Your task to perform on an android device: Go to CNN.com Image 0: 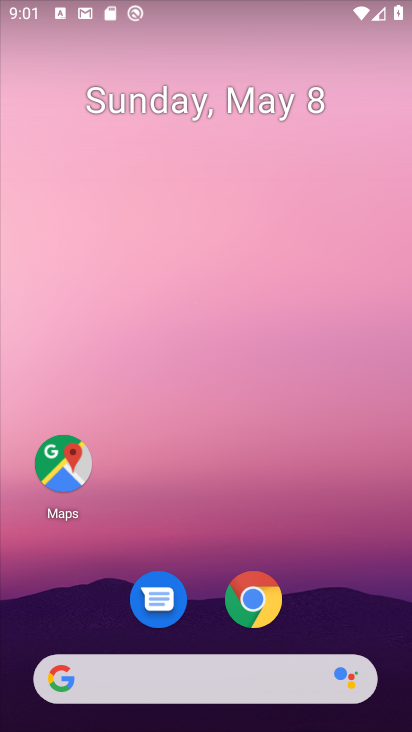
Step 0: click (262, 596)
Your task to perform on an android device: Go to CNN.com Image 1: 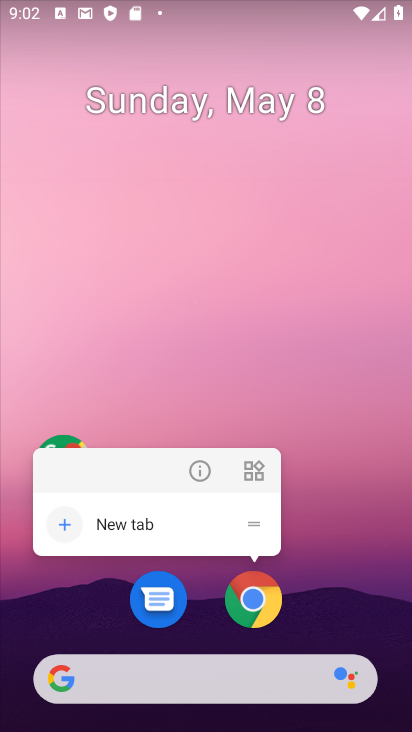
Step 1: click (286, 605)
Your task to perform on an android device: Go to CNN.com Image 2: 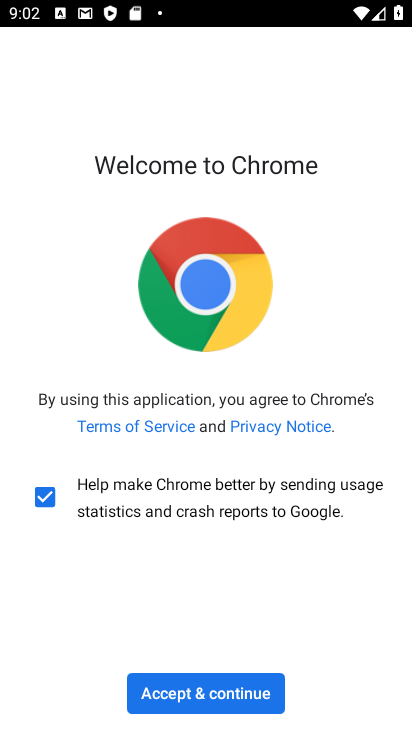
Step 2: click (204, 682)
Your task to perform on an android device: Go to CNN.com Image 3: 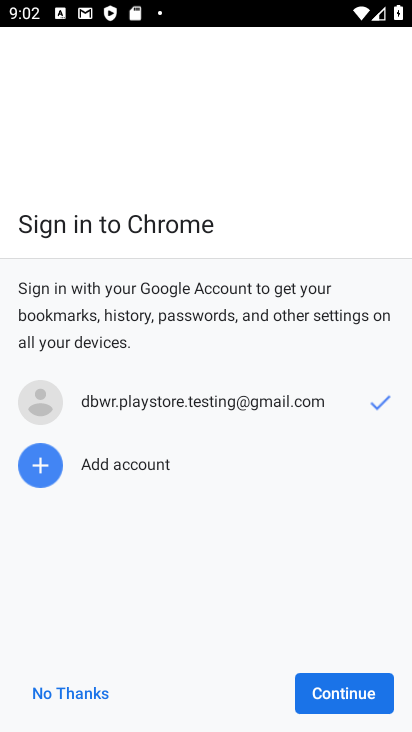
Step 3: click (347, 709)
Your task to perform on an android device: Go to CNN.com Image 4: 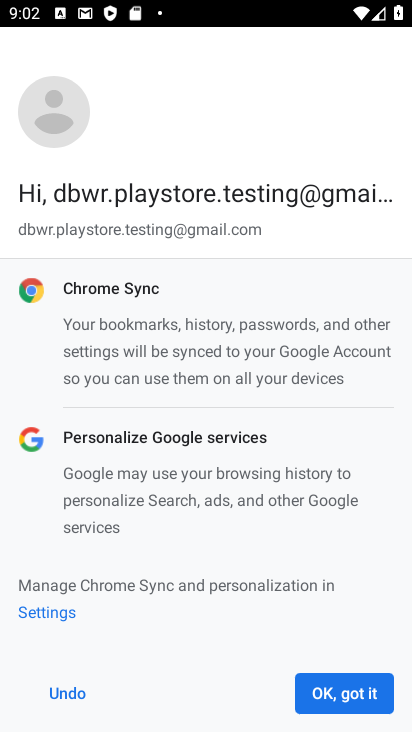
Step 4: click (321, 694)
Your task to perform on an android device: Go to CNN.com Image 5: 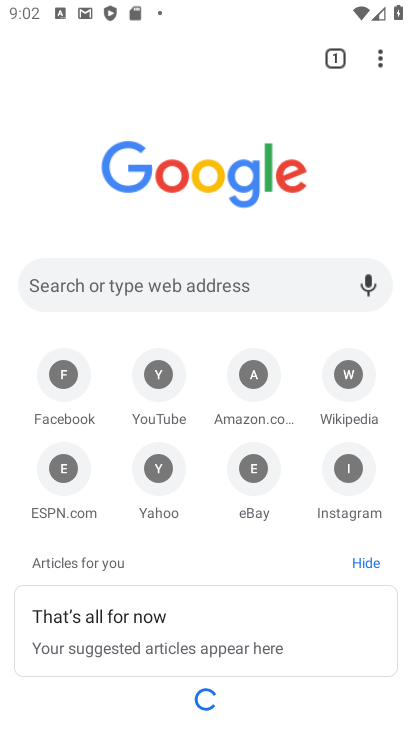
Step 5: click (202, 277)
Your task to perform on an android device: Go to CNN.com Image 6: 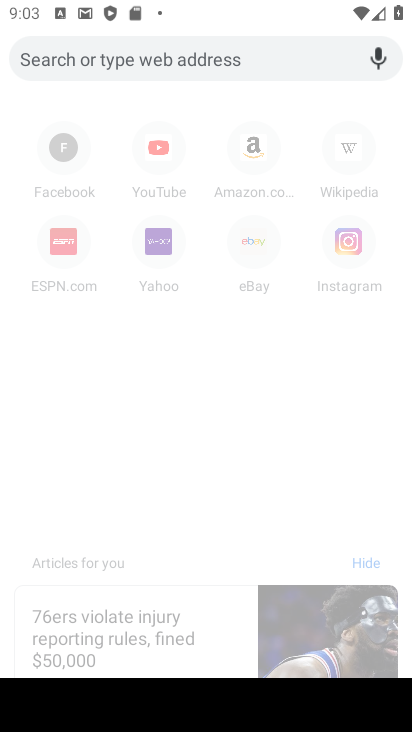
Step 6: type "cnn.com"
Your task to perform on an android device: Go to CNN.com Image 7: 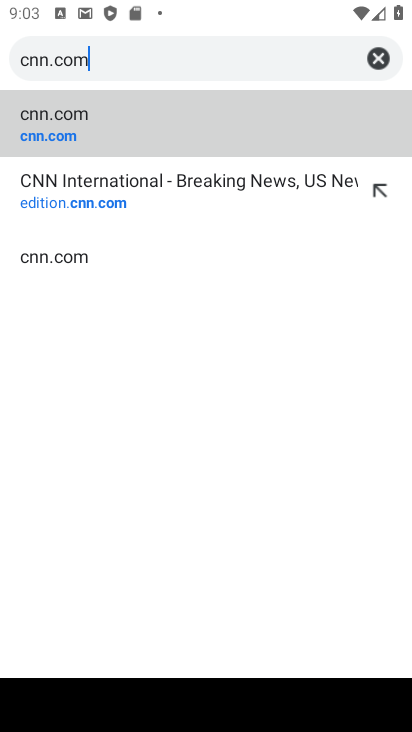
Step 7: click (239, 117)
Your task to perform on an android device: Go to CNN.com Image 8: 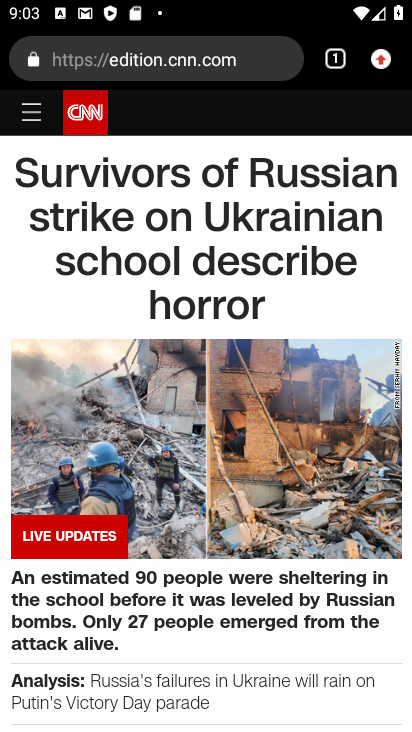
Step 8: click (230, 73)
Your task to perform on an android device: Go to CNN.com Image 9: 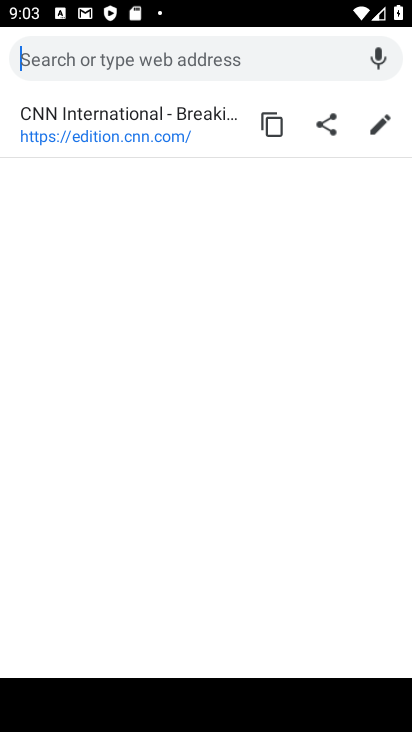
Step 9: type "cnn.com"
Your task to perform on an android device: Go to CNN.com Image 10: 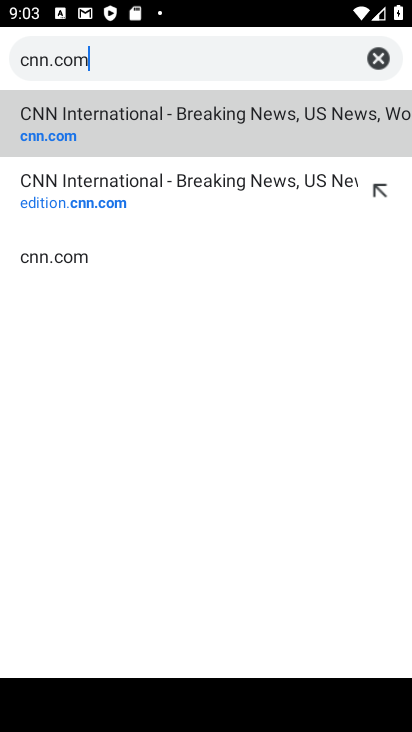
Step 10: click (153, 124)
Your task to perform on an android device: Go to CNN.com Image 11: 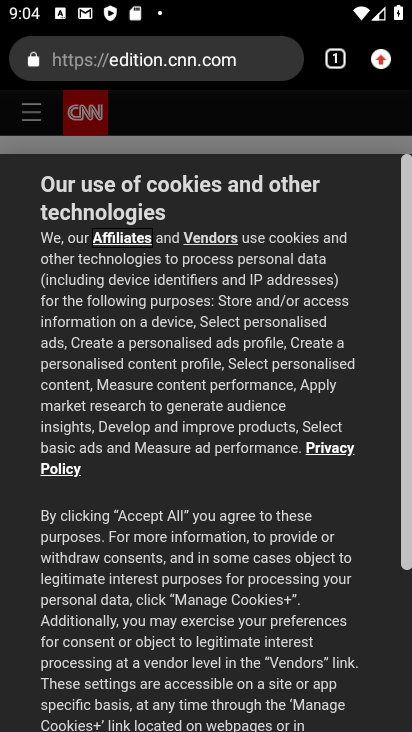
Step 11: task complete